Your task to perform on an android device: Go to Google maps Image 0: 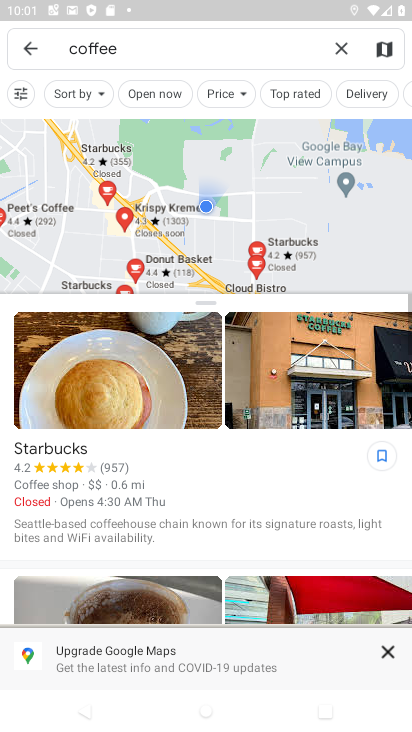
Step 0: press home button
Your task to perform on an android device: Go to Google maps Image 1: 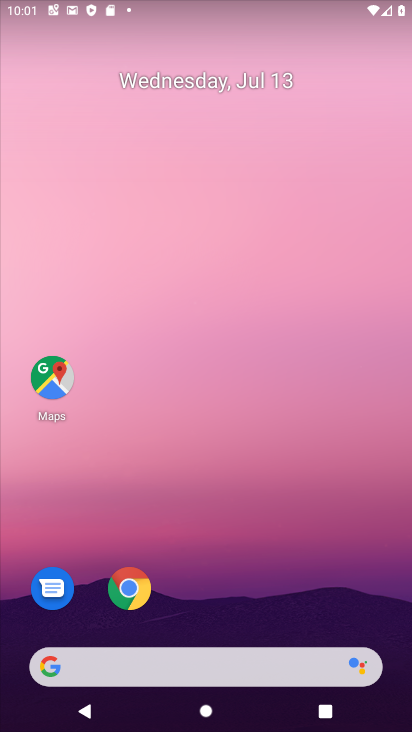
Step 1: drag from (202, 648) to (142, 53)
Your task to perform on an android device: Go to Google maps Image 2: 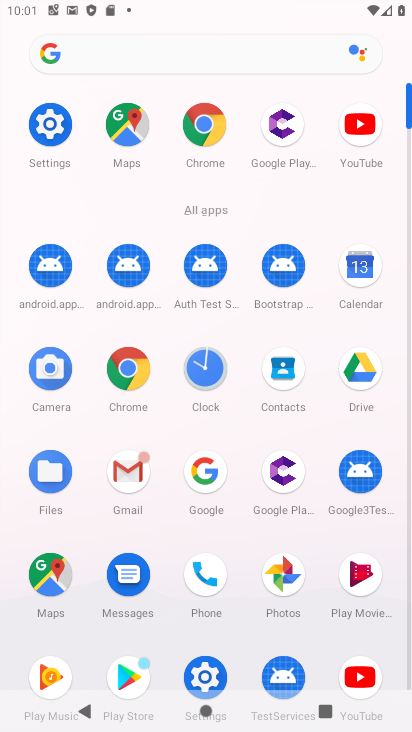
Step 2: click (52, 568)
Your task to perform on an android device: Go to Google maps Image 3: 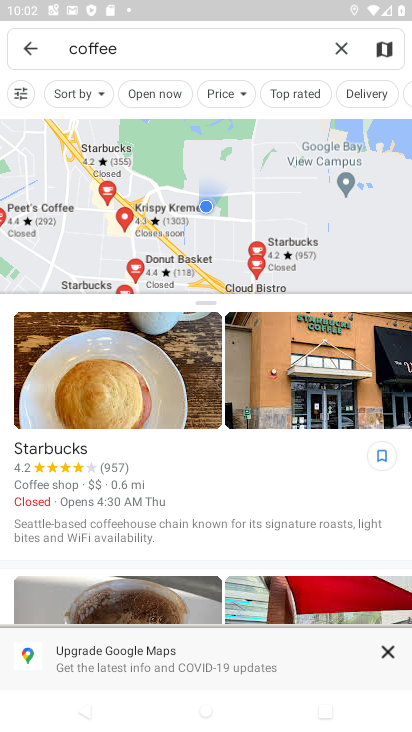
Step 3: click (35, 37)
Your task to perform on an android device: Go to Google maps Image 4: 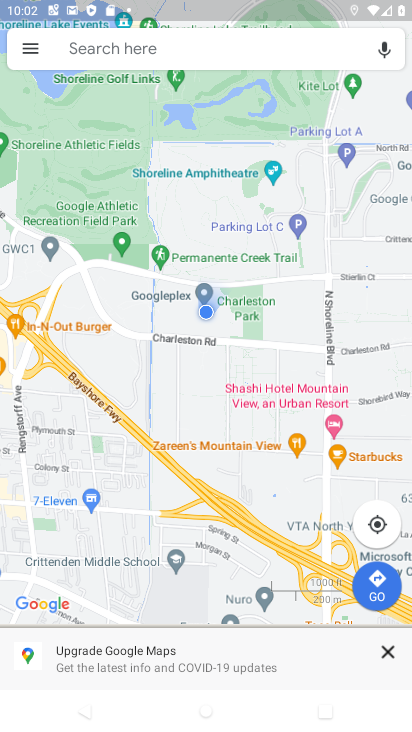
Step 4: task complete